Your task to perform on an android device: Open Amazon Image 0: 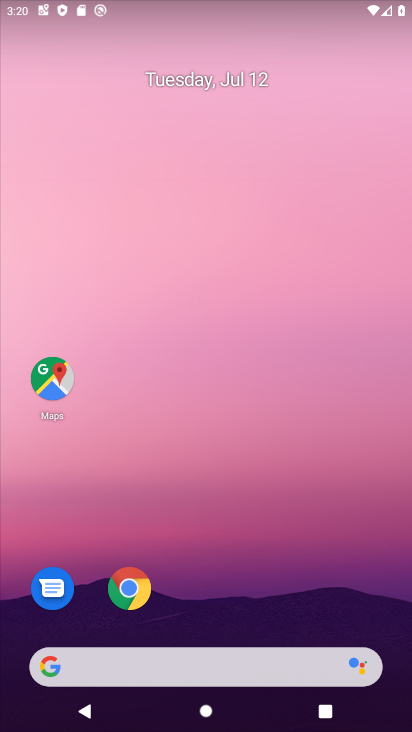
Step 0: click (133, 582)
Your task to perform on an android device: Open Amazon Image 1: 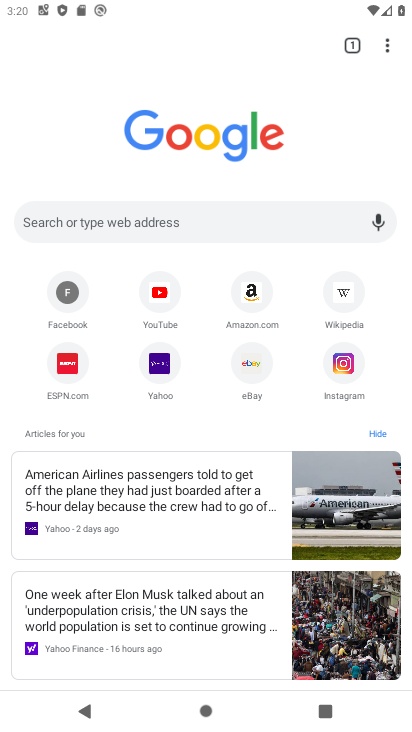
Step 1: click (258, 307)
Your task to perform on an android device: Open Amazon Image 2: 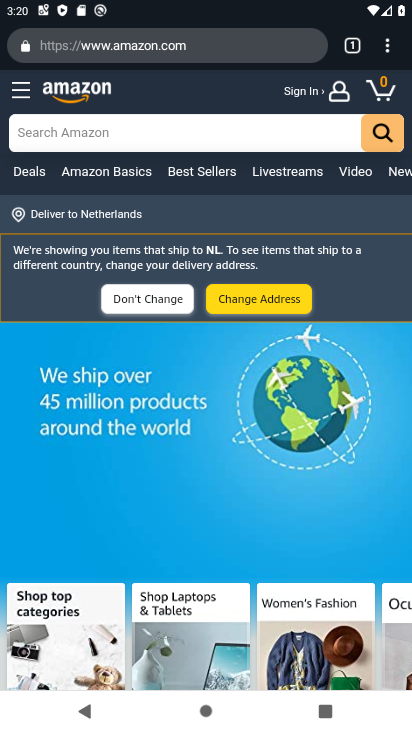
Step 2: task complete